Your task to perform on an android device: see sites visited before in the chrome app Image 0: 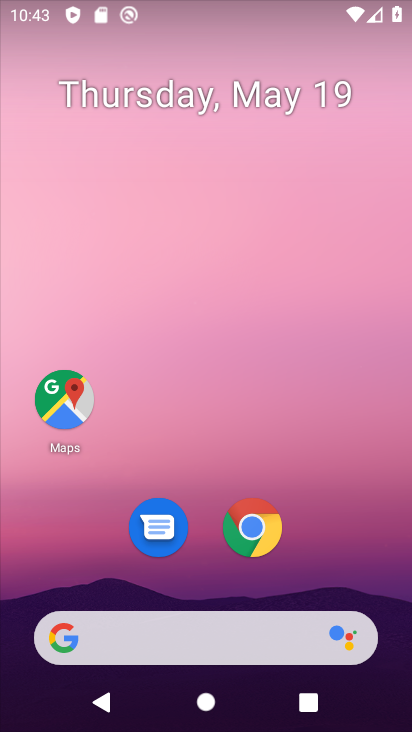
Step 0: click (244, 539)
Your task to perform on an android device: see sites visited before in the chrome app Image 1: 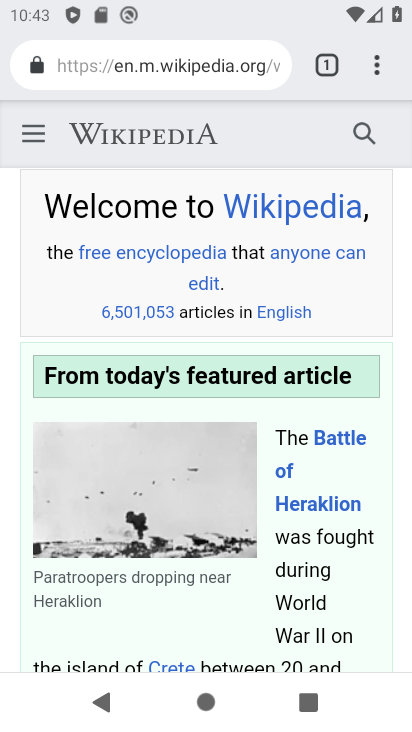
Step 1: click (376, 65)
Your task to perform on an android device: see sites visited before in the chrome app Image 2: 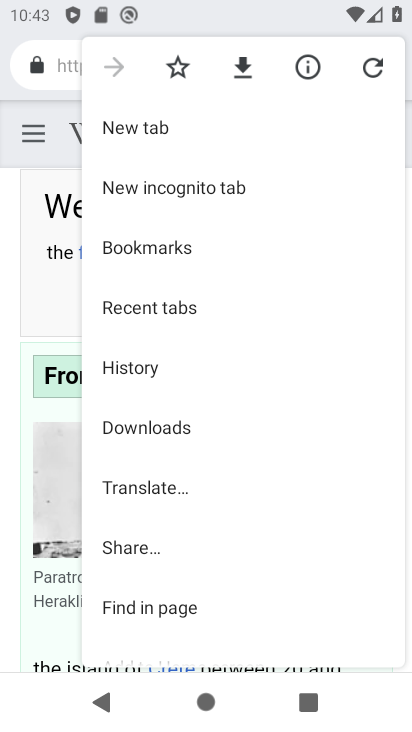
Step 2: click (162, 374)
Your task to perform on an android device: see sites visited before in the chrome app Image 3: 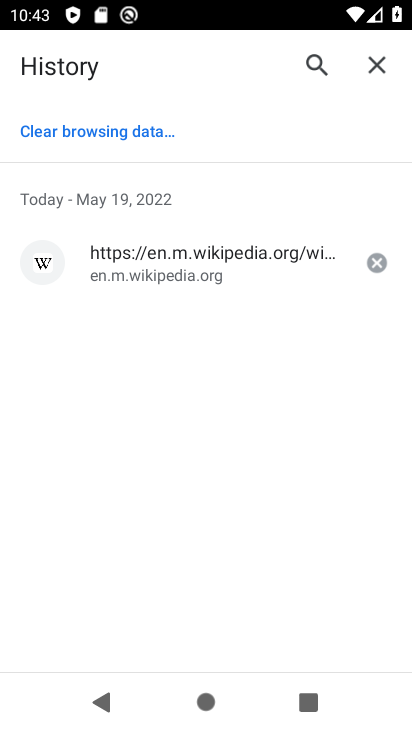
Step 3: task complete